Your task to perform on an android device: delete the emails in spam in the gmail app Image 0: 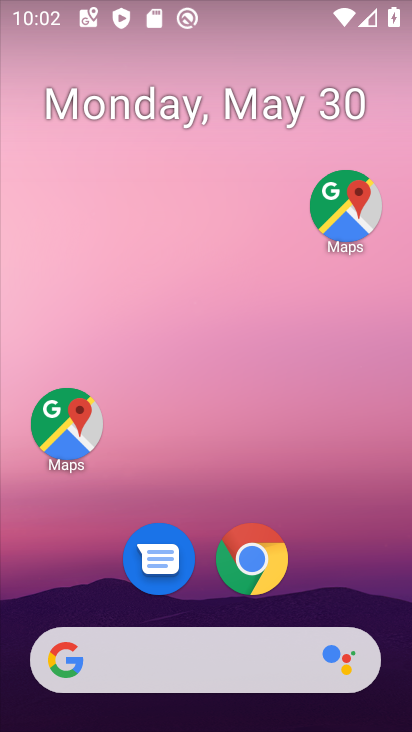
Step 0: drag from (359, 553) to (245, 82)
Your task to perform on an android device: delete the emails in spam in the gmail app Image 1: 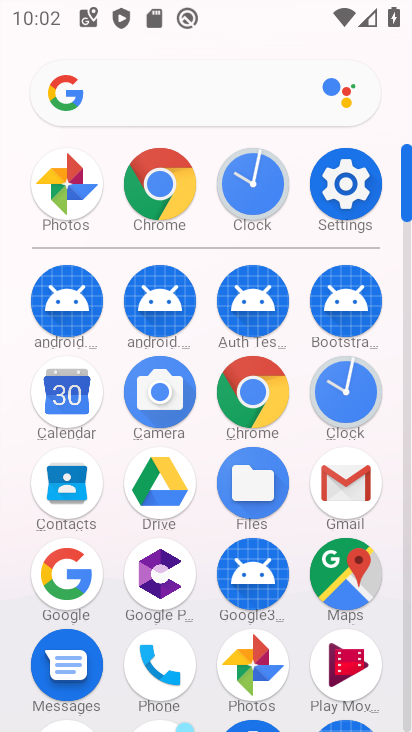
Step 1: click (335, 501)
Your task to perform on an android device: delete the emails in spam in the gmail app Image 2: 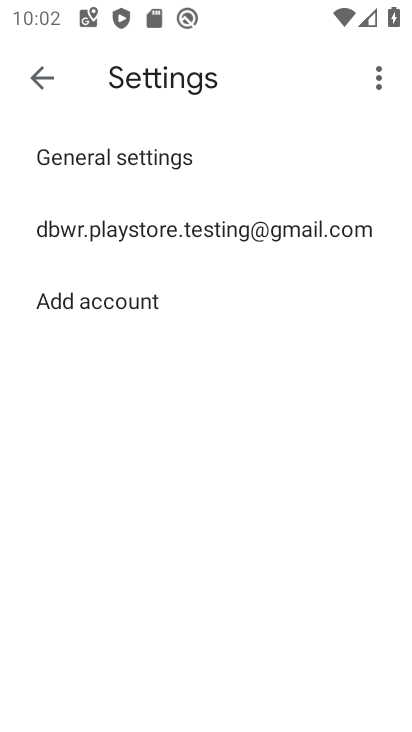
Step 2: click (40, 83)
Your task to perform on an android device: delete the emails in spam in the gmail app Image 3: 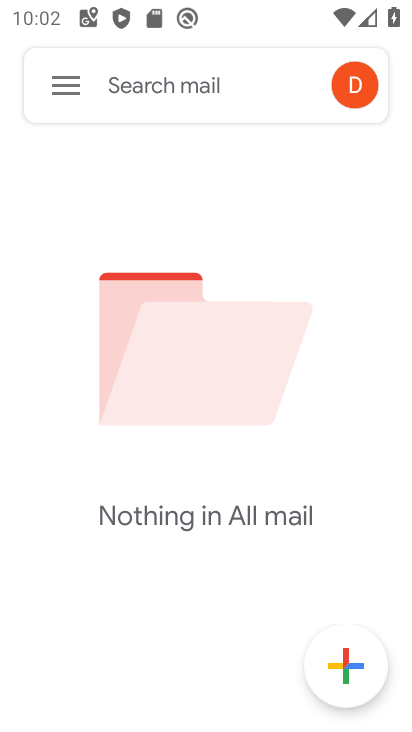
Step 3: click (40, 83)
Your task to perform on an android device: delete the emails in spam in the gmail app Image 4: 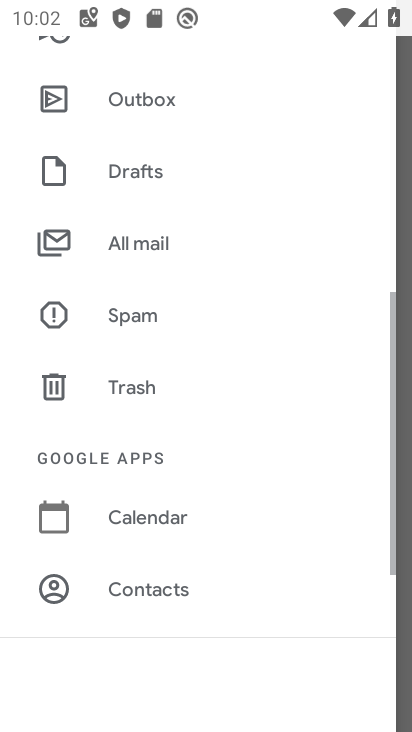
Step 4: click (139, 307)
Your task to perform on an android device: delete the emails in spam in the gmail app Image 5: 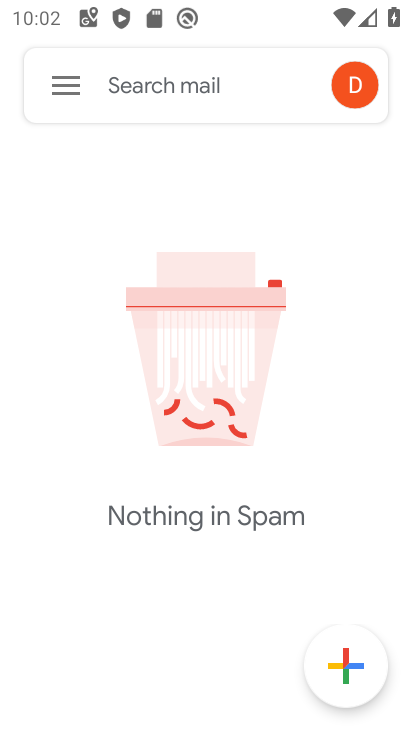
Step 5: task complete